Your task to perform on an android device: toggle notification dots Image 0: 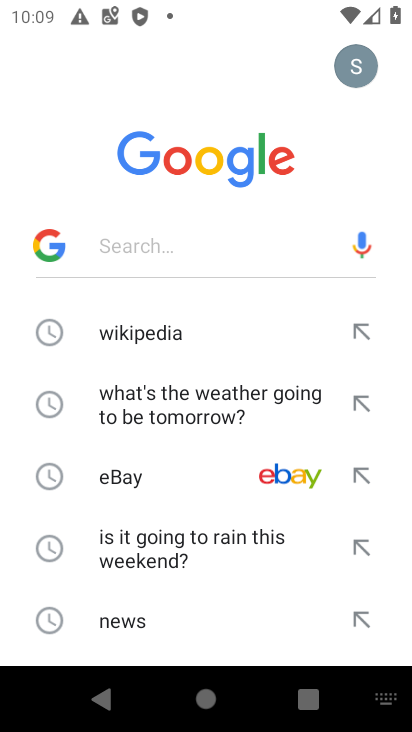
Step 0: press back button
Your task to perform on an android device: toggle notification dots Image 1: 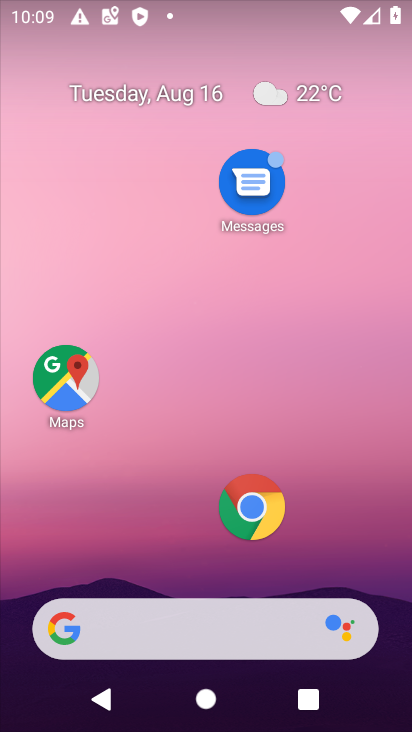
Step 1: drag from (177, 525) to (285, 11)
Your task to perform on an android device: toggle notification dots Image 2: 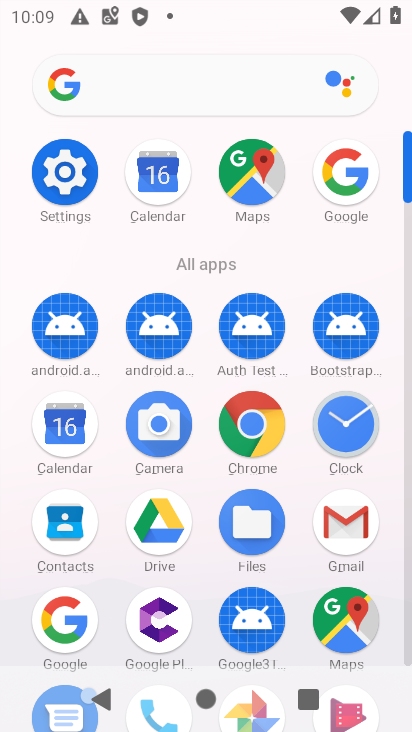
Step 2: click (61, 166)
Your task to perform on an android device: toggle notification dots Image 3: 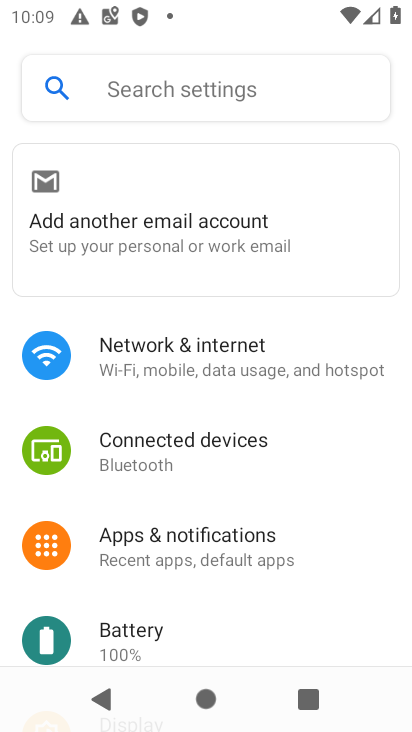
Step 3: click (189, 540)
Your task to perform on an android device: toggle notification dots Image 4: 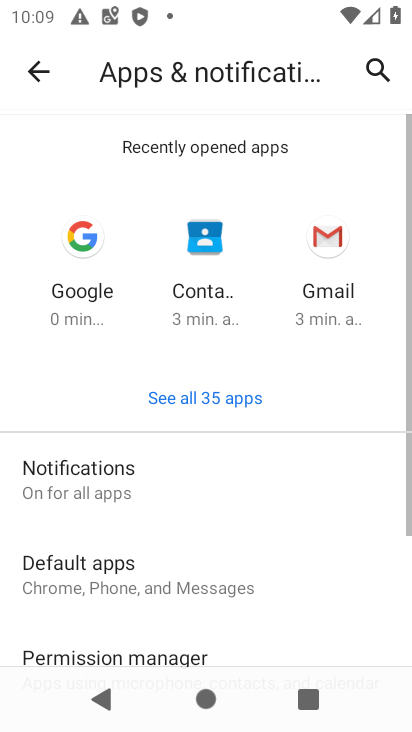
Step 4: click (119, 467)
Your task to perform on an android device: toggle notification dots Image 5: 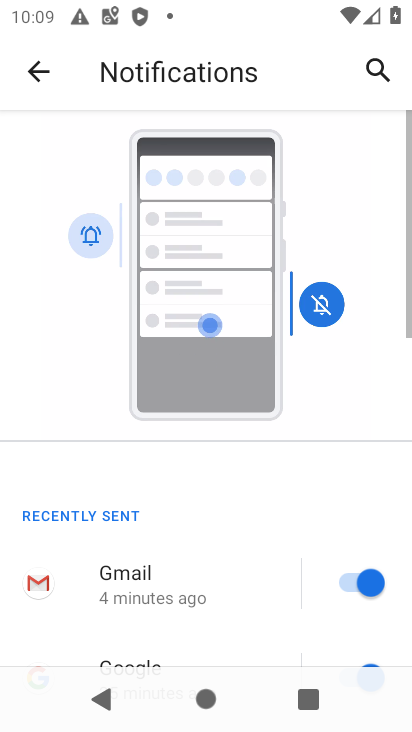
Step 5: drag from (190, 629) to (311, 28)
Your task to perform on an android device: toggle notification dots Image 6: 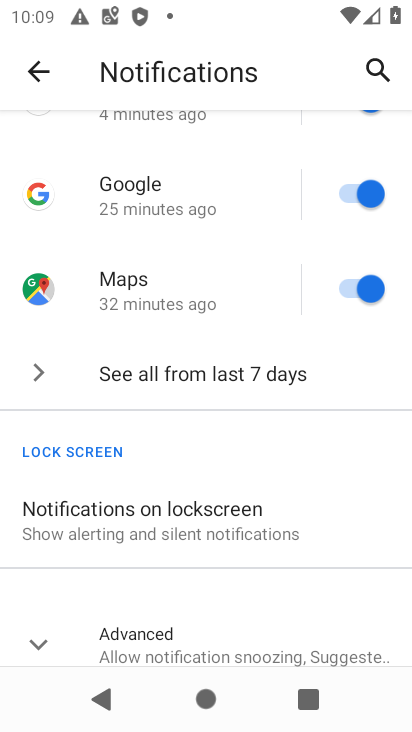
Step 6: click (142, 637)
Your task to perform on an android device: toggle notification dots Image 7: 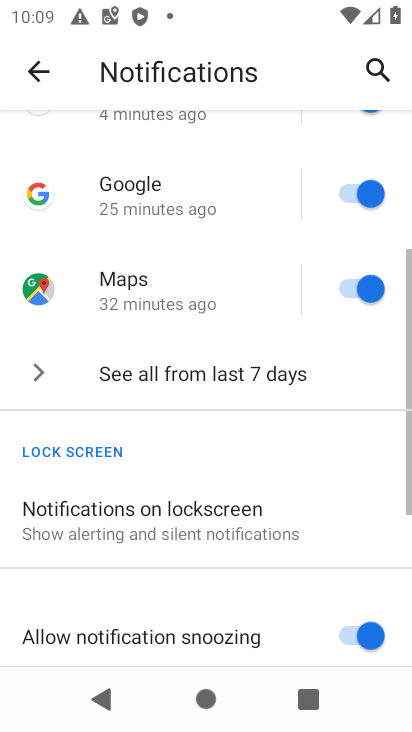
Step 7: drag from (160, 601) to (279, 24)
Your task to perform on an android device: toggle notification dots Image 8: 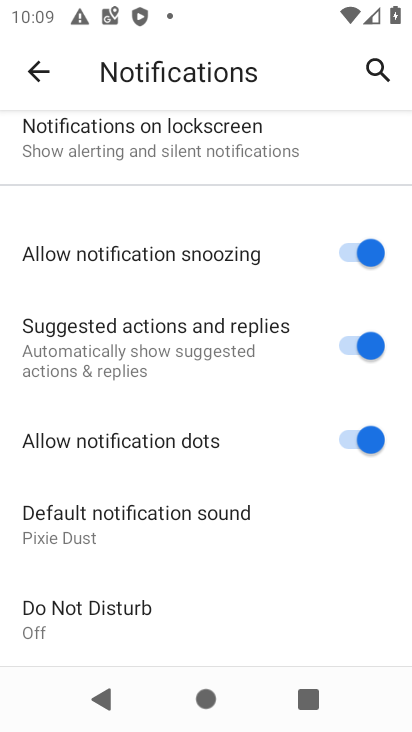
Step 8: click (364, 446)
Your task to perform on an android device: toggle notification dots Image 9: 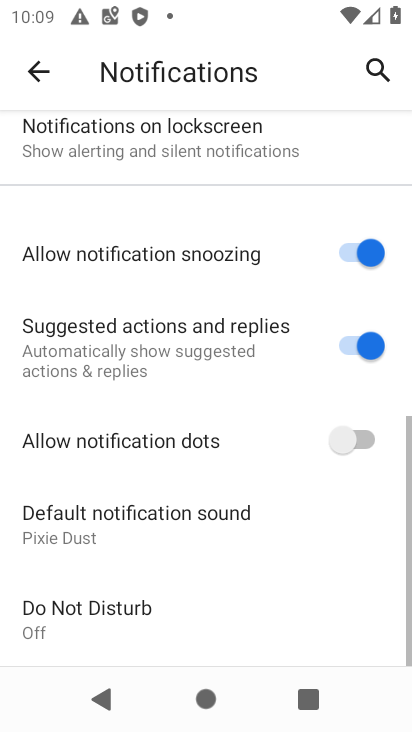
Step 9: task complete